Your task to perform on an android device: turn on javascript in the chrome app Image 0: 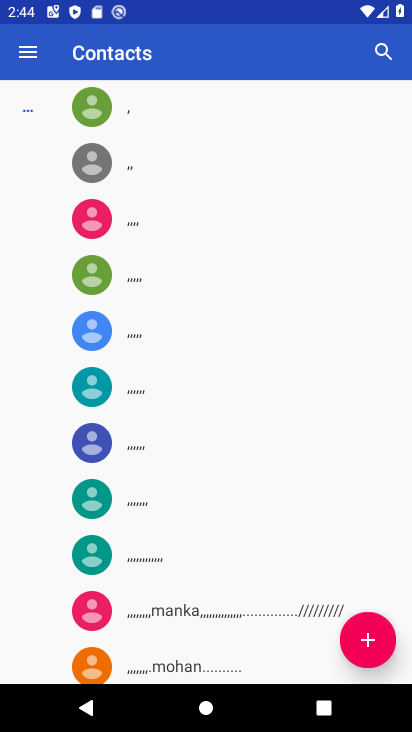
Step 0: press home button
Your task to perform on an android device: turn on javascript in the chrome app Image 1: 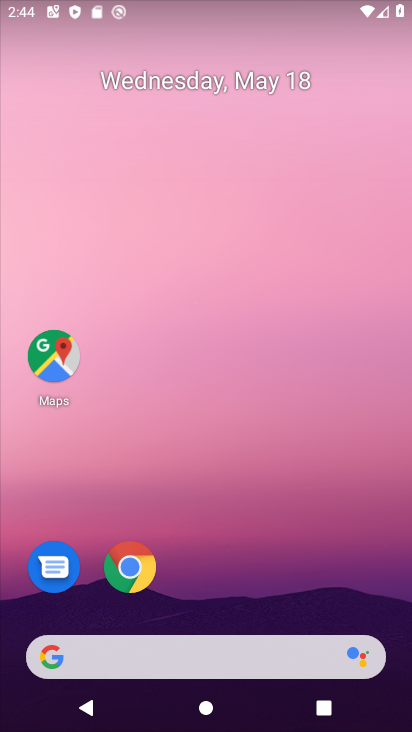
Step 1: click (160, 580)
Your task to perform on an android device: turn on javascript in the chrome app Image 2: 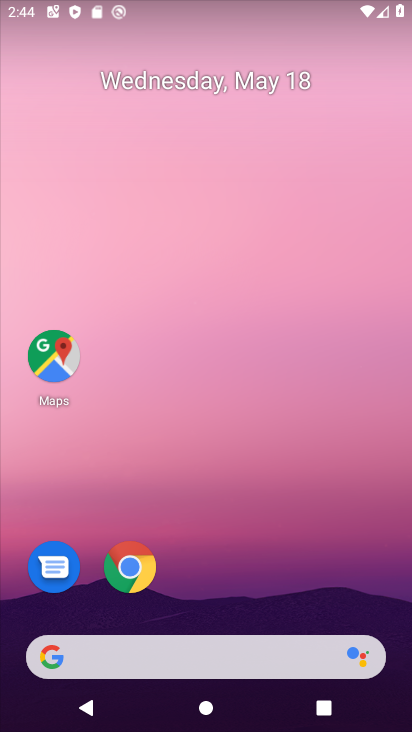
Step 2: click (130, 580)
Your task to perform on an android device: turn on javascript in the chrome app Image 3: 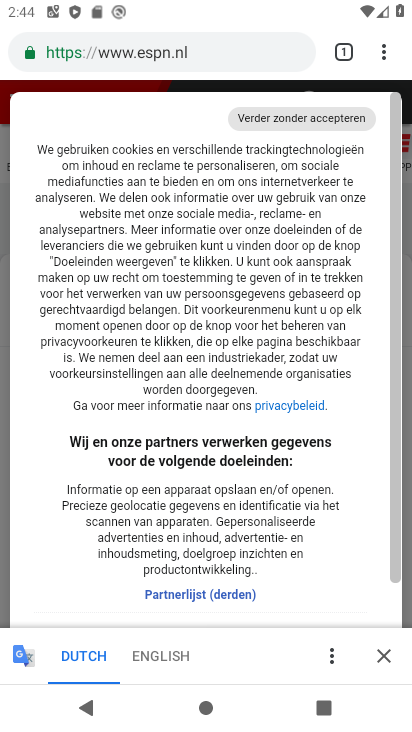
Step 3: click (380, 57)
Your task to perform on an android device: turn on javascript in the chrome app Image 4: 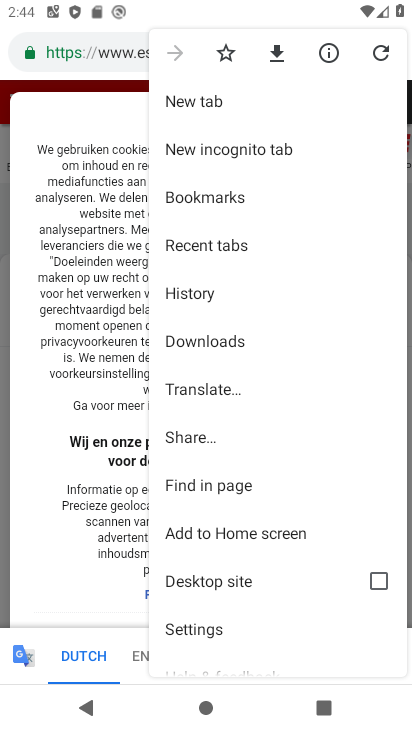
Step 4: click (218, 626)
Your task to perform on an android device: turn on javascript in the chrome app Image 5: 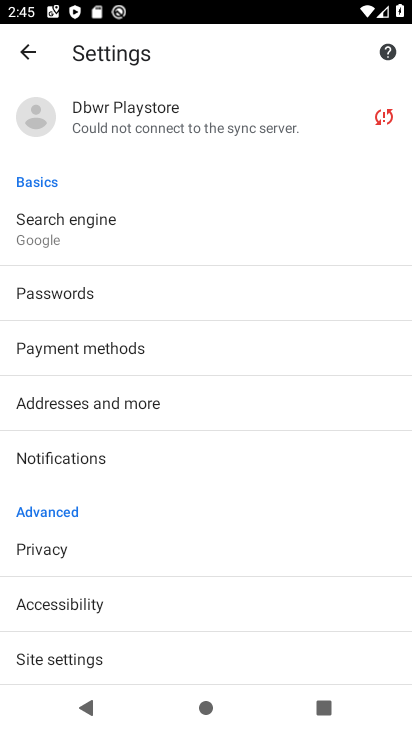
Step 5: click (77, 662)
Your task to perform on an android device: turn on javascript in the chrome app Image 6: 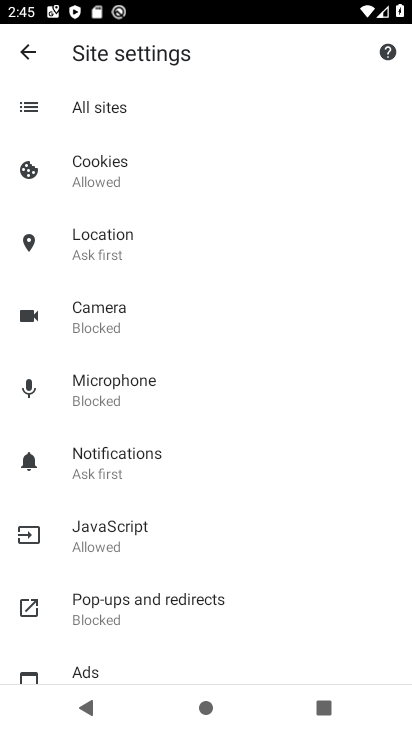
Step 6: click (102, 535)
Your task to perform on an android device: turn on javascript in the chrome app Image 7: 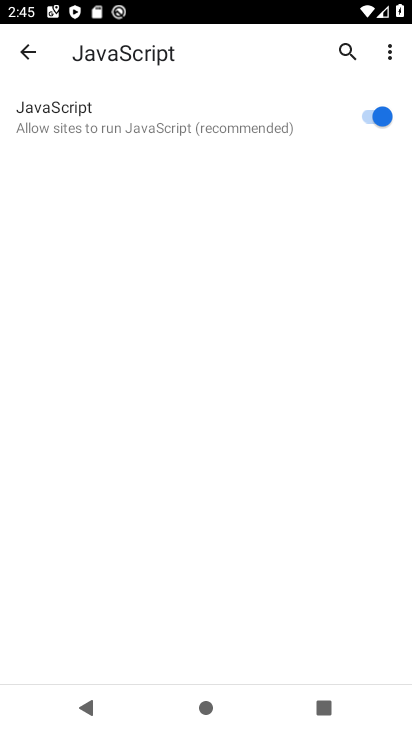
Step 7: task complete